Your task to perform on an android device: Go to network settings Image 0: 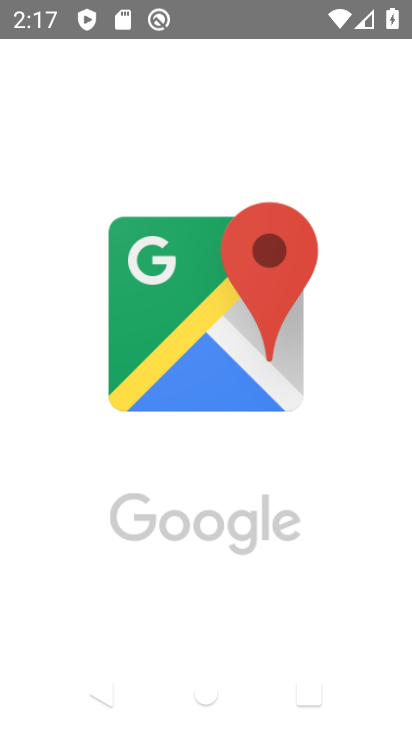
Step 0: press home button
Your task to perform on an android device: Go to network settings Image 1: 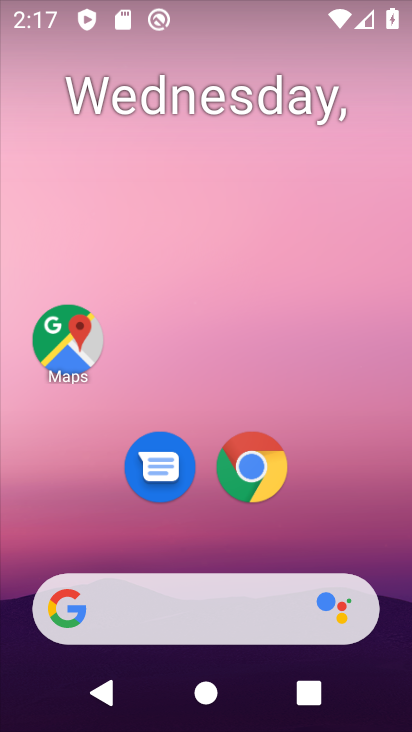
Step 1: drag from (203, 604) to (343, 43)
Your task to perform on an android device: Go to network settings Image 2: 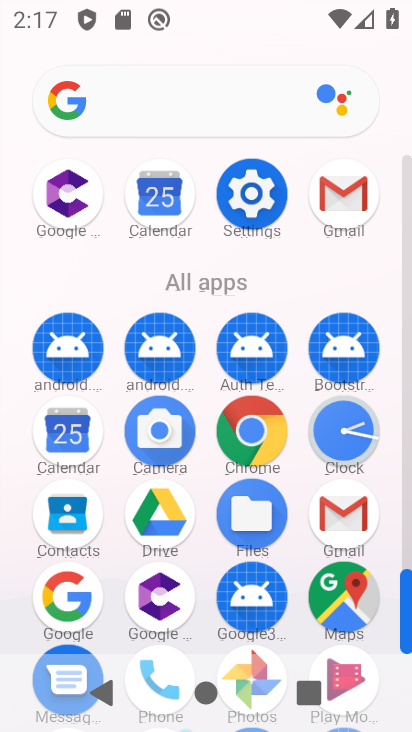
Step 2: click (265, 190)
Your task to perform on an android device: Go to network settings Image 3: 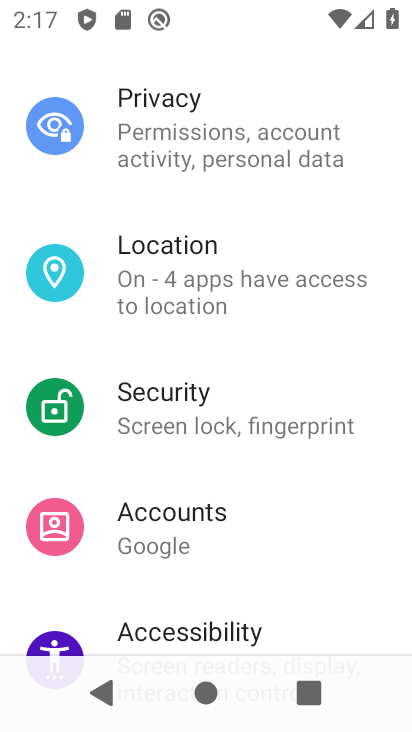
Step 3: drag from (307, 99) to (223, 556)
Your task to perform on an android device: Go to network settings Image 4: 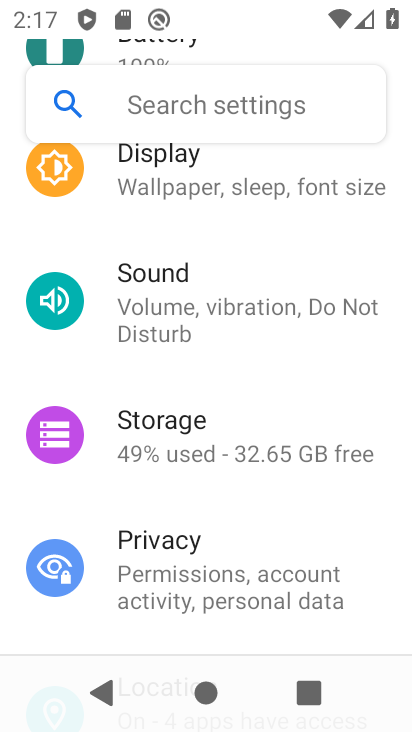
Step 4: drag from (296, 244) to (235, 584)
Your task to perform on an android device: Go to network settings Image 5: 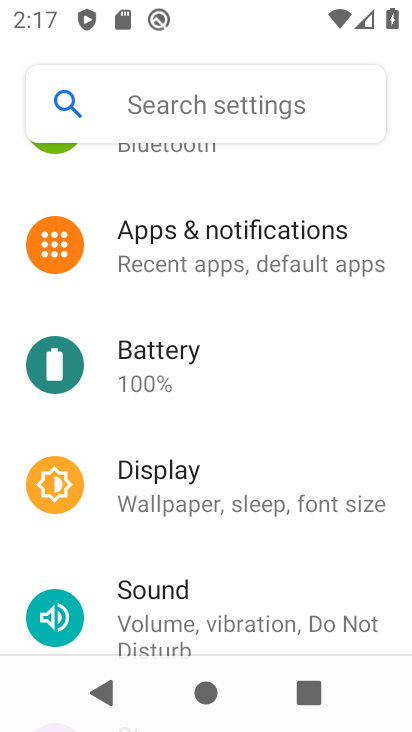
Step 5: drag from (295, 206) to (208, 612)
Your task to perform on an android device: Go to network settings Image 6: 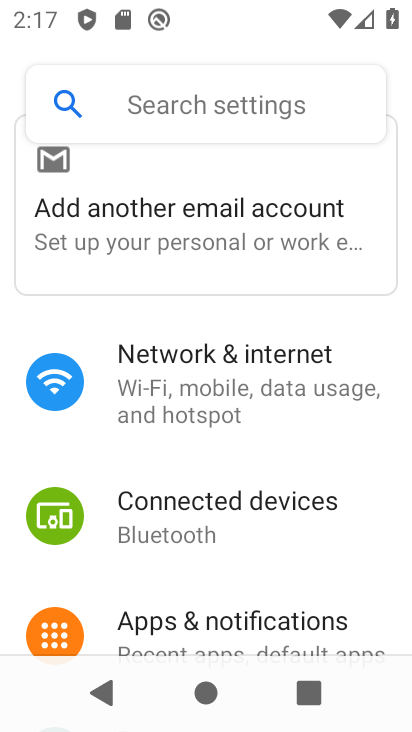
Step 6: click (241, 366)
Your task to perform on an android device: Go to network settings Image 7: 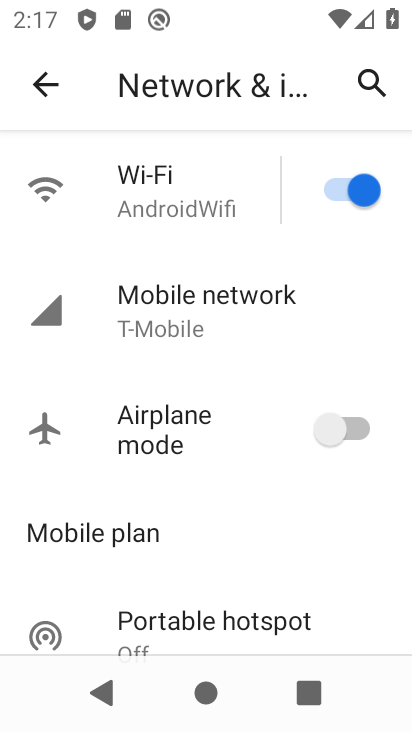
Step 7: task complete